Your task to perform on an android device: toggle wifi Image 0: 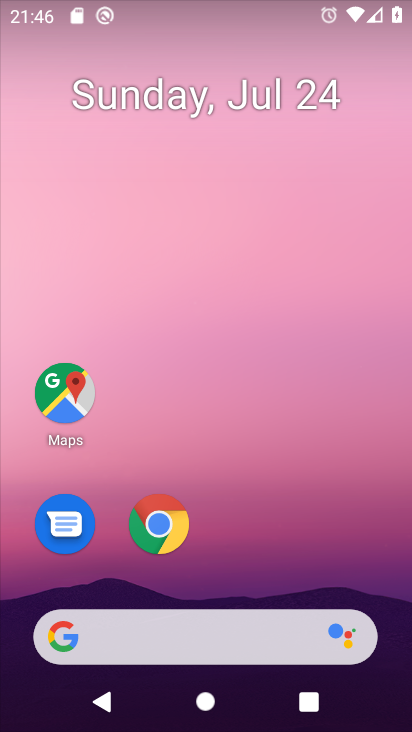
Step 0: drag from (246, 544) to (273, 23)
Your task to perform on an android device: toggle wifi Image 1: 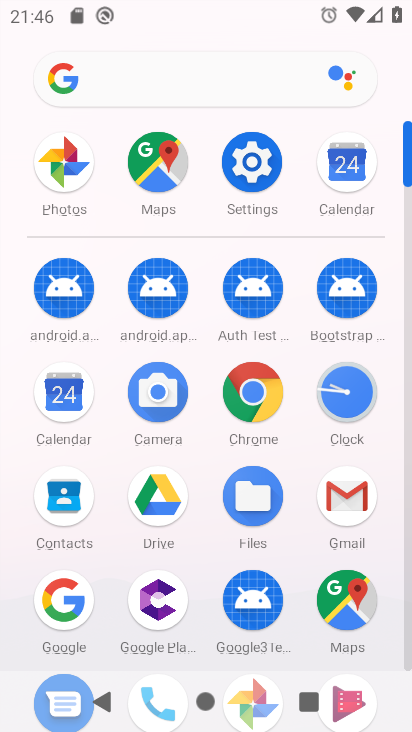
Step 1: click (253, 151)
Your task to perform on an android device: toggle wifi Image 2: 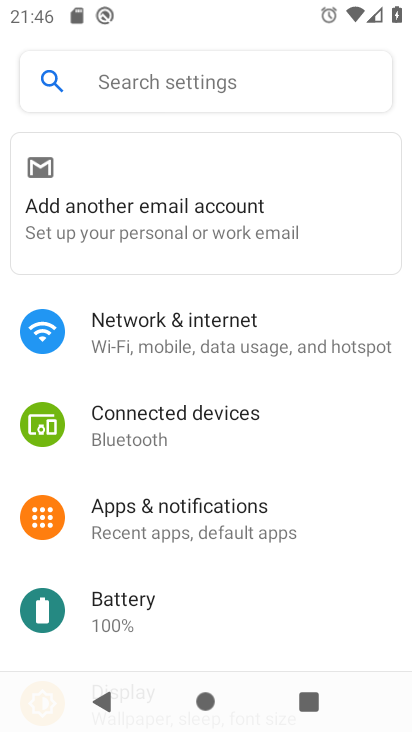
Step 2: click (196, 323)
Your task to perform on an android device: toggle wifi Image 3: 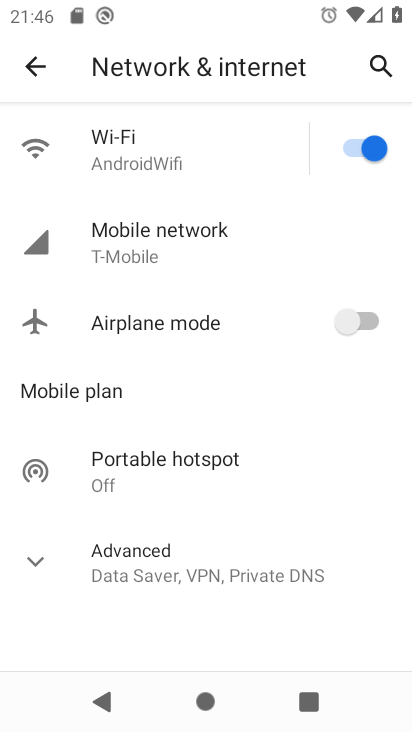
Step 3: click (365, 137)
Your task to perform on an android device: toggle wifi Image 4: 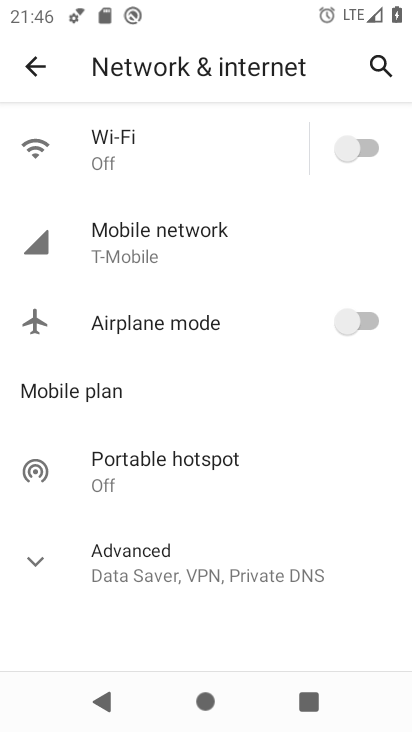
Step 4: task complete